Your task to perform on an android device: find which apps use the phone's location Image 0: 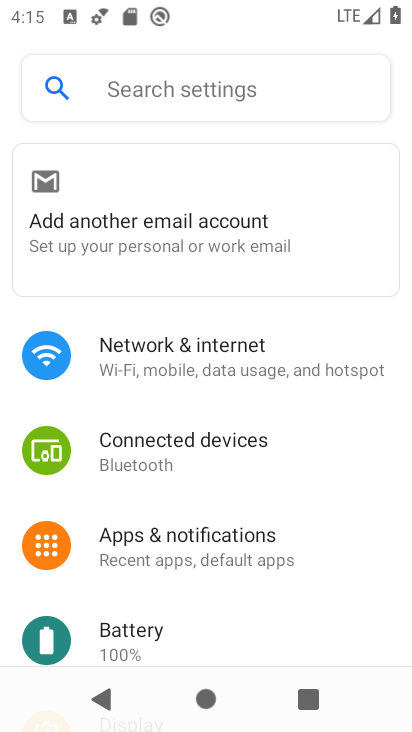
Step 0: drag from (362, 455) to (377, 193)
Your task to perform on an android device: find which apps use the phone's location Image 1: 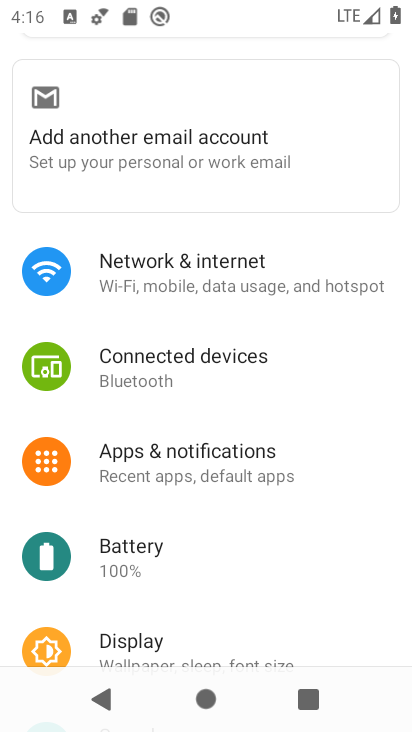
Step 1: drag from (324, 550) to (367, 229)
Your task to perform on an android device: find which apps use the phone's location Image 2: 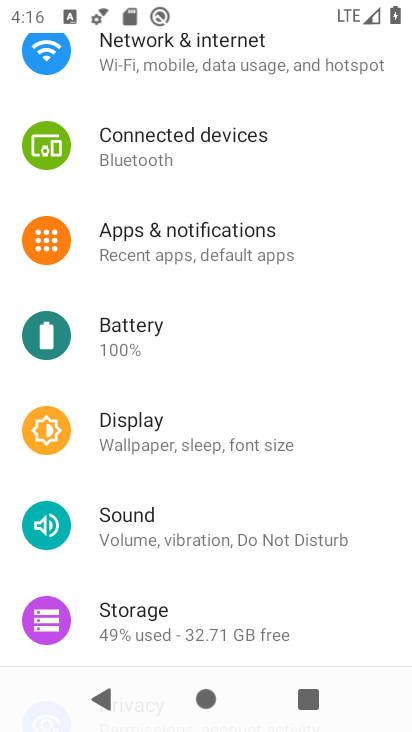
Step 2: drag from (353, 599) to (356, 249)
Your task to perform on an android device: find which apps use the phone's location Image 3: 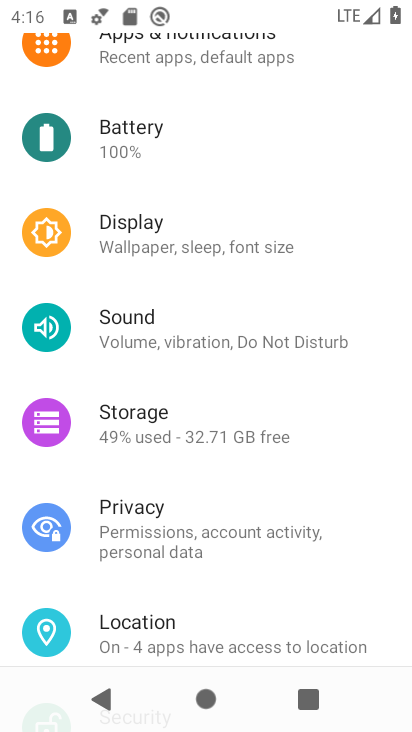
Step 3: drag from (220, 616) to (328, 290)
Your task to perform on an android device: find which apps use the phone's location Image 4: 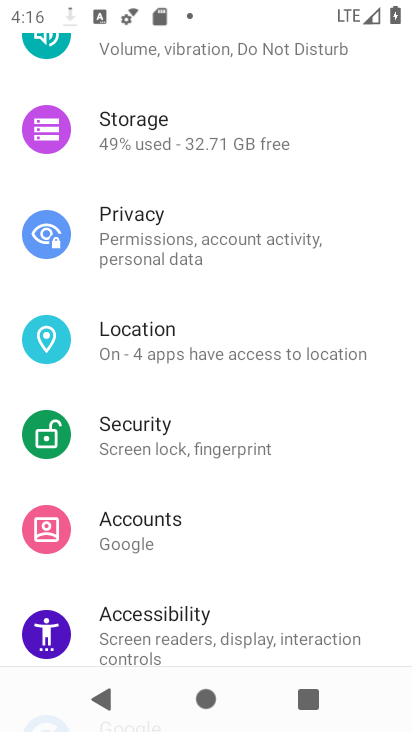
Step 4: click (183, 344)
Your task to perform on an android device: find which apps use the phone's location Image 5: 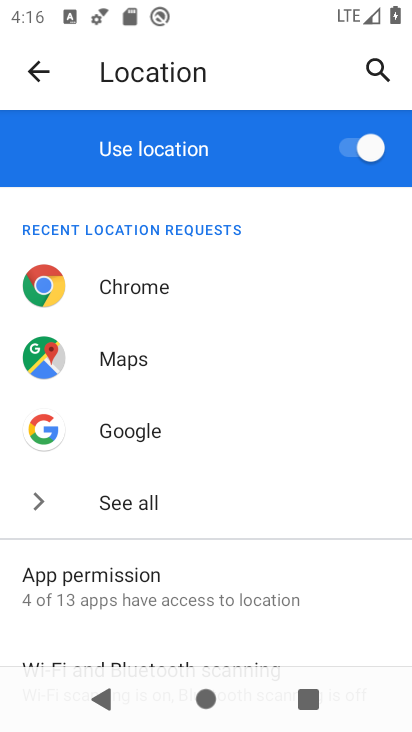
Step 5: drag from (254, 629) to (301, 324)
Your task to perform on an android device: find which apps use the phone's location Image 6: 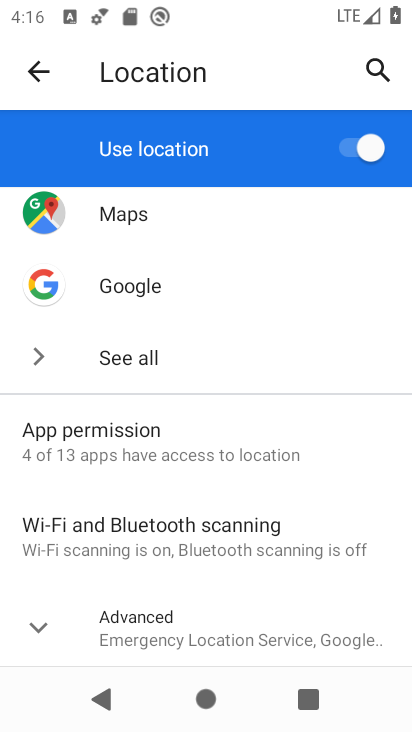
Step 6: click (76, 419)
Your task to perform on an android device: find which apps use the phone's location Image 7: 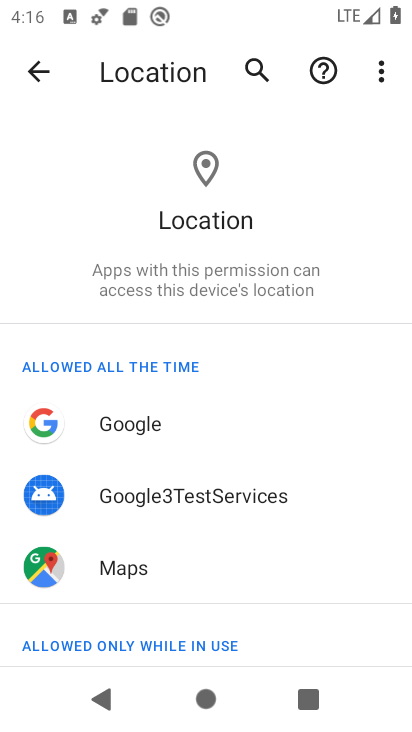
Step 7: drag from (254, 552) to (314, 136)
Your task to perform on an android device: find which apps use the phone's location Image 8: 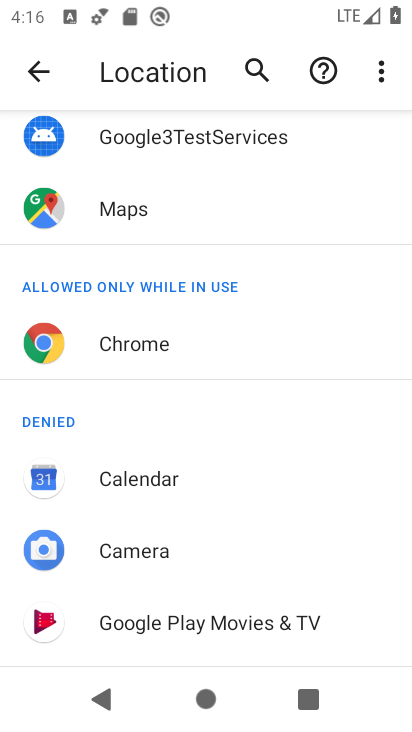
Step 8: drag from (270, 552) to (325, 119)
Your task to perform on an android device: find which apps use the phone's location Image 9: 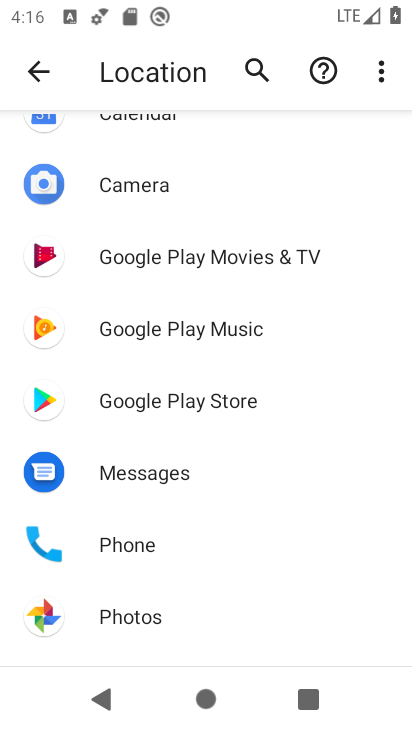
Step 9: drag from (227, 598) to (298, 163)
Your task to perform on an android device: find which apps use the phone's location Image 10: 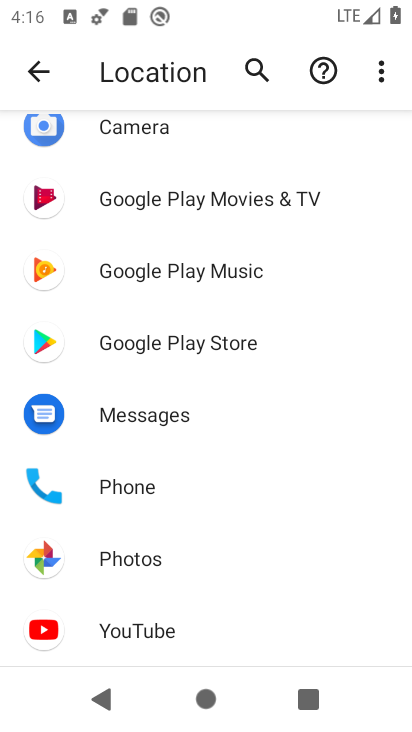
Step 10: click (97, 556)
Your task to perform on an android device: find which apps use the phone's location Image 11: 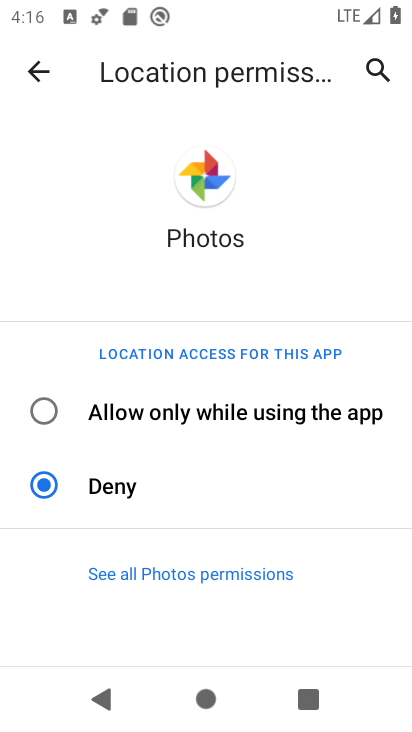
Step 11: task complete